Your task to perform on an android device: install app "Google Keep" Image 0: 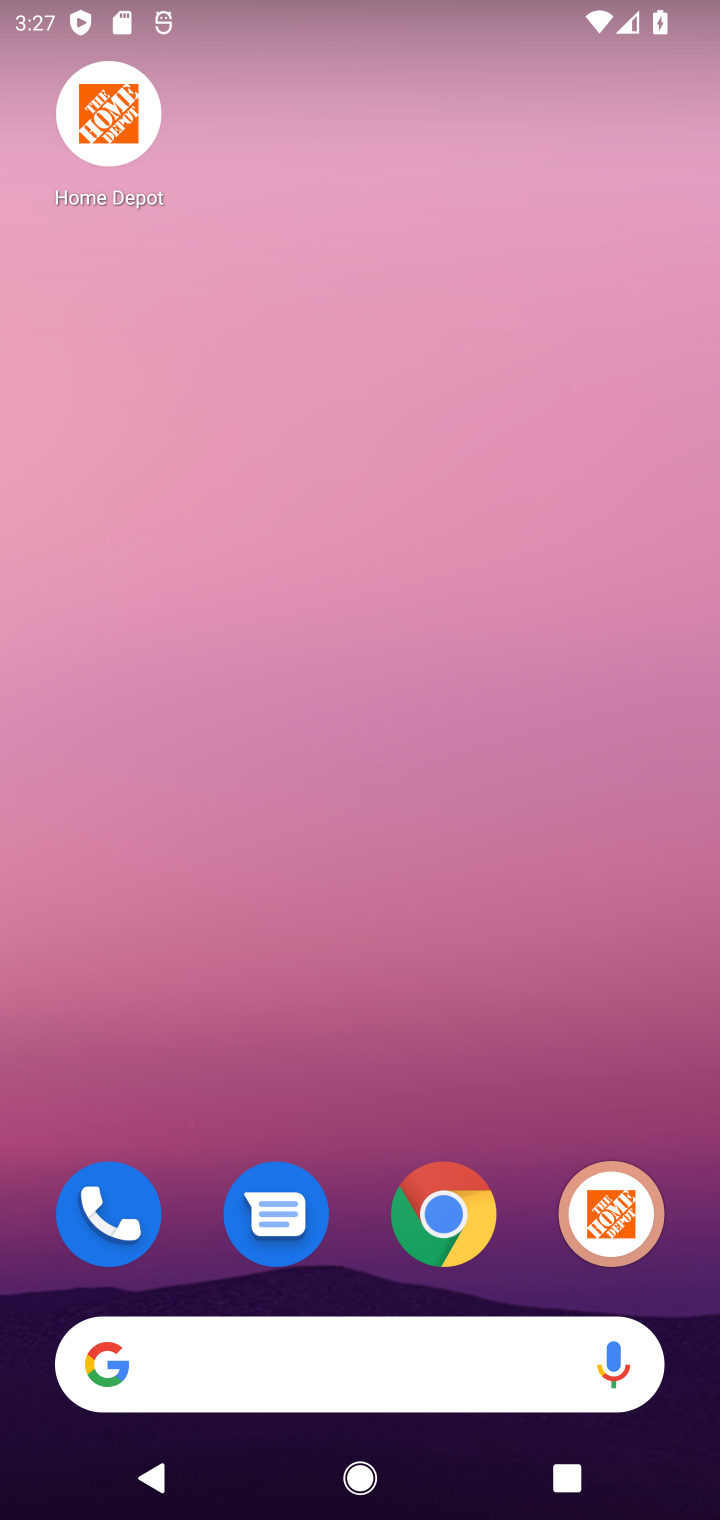
Step 0: drag from (504, 1407) to (410, 87)
Your task to perform on an android device: install app "Google Keep" Image 1: 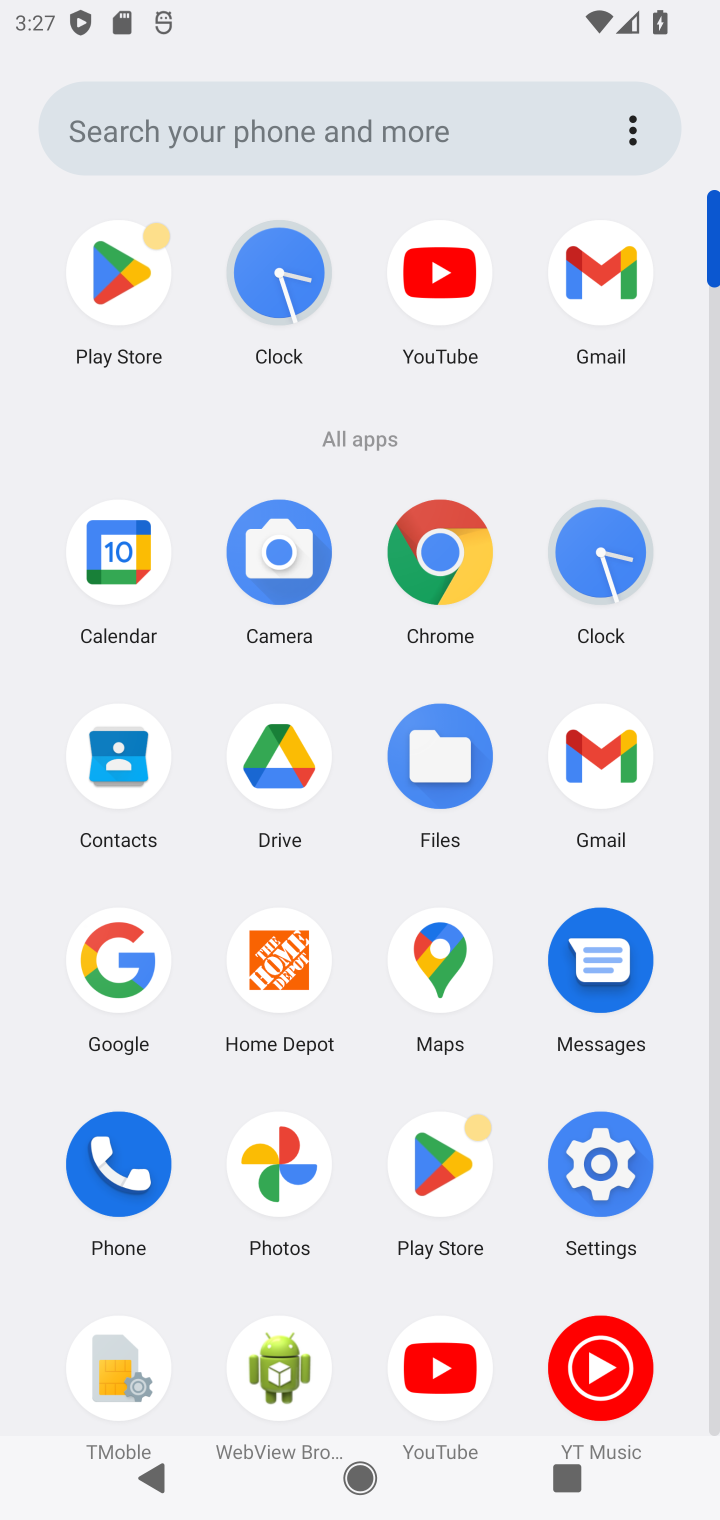
Step 1: click (460, 1172)
Your task to perform on an android device: install app "Google Keep" Image 2: 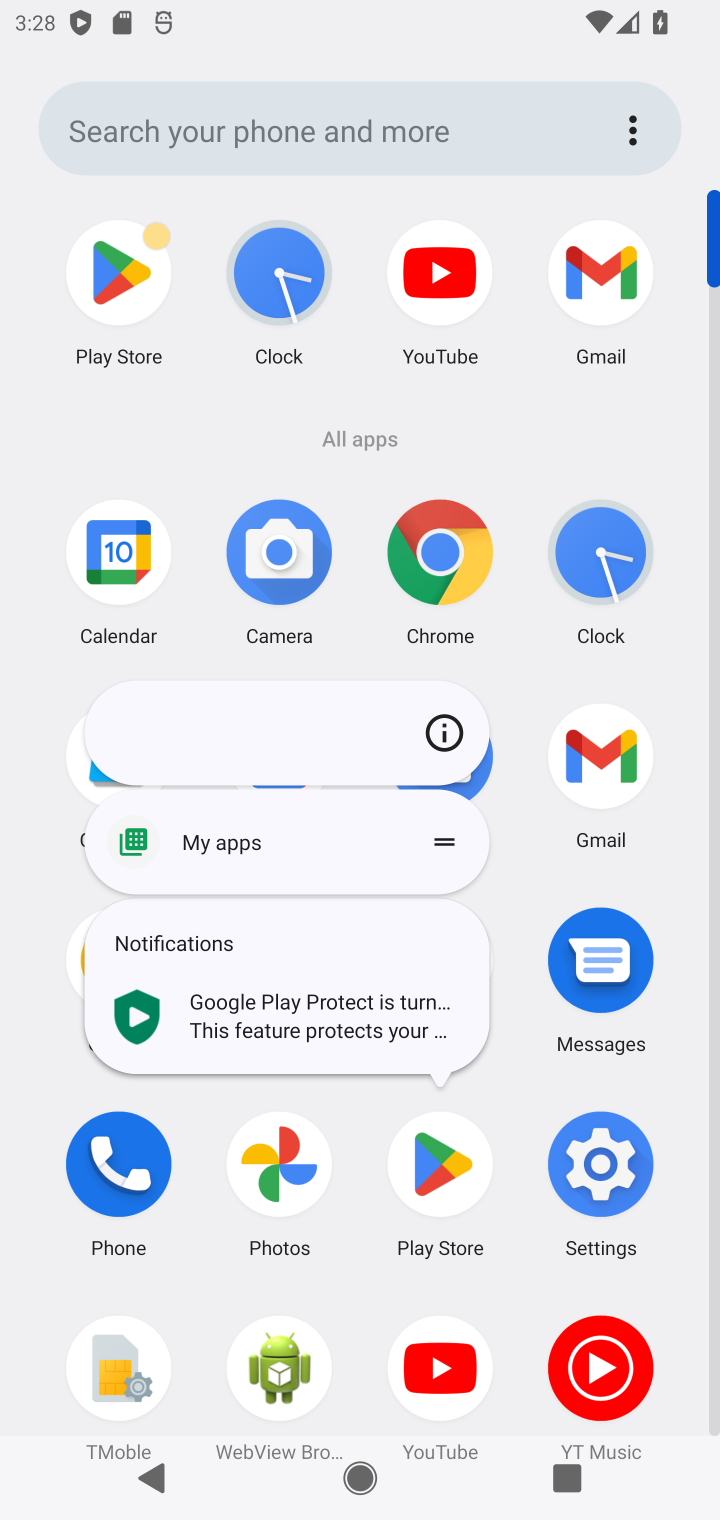
Step 2: click (429, 1191)
Your task to perform on an android device: install app "Google Keep" Image 3: 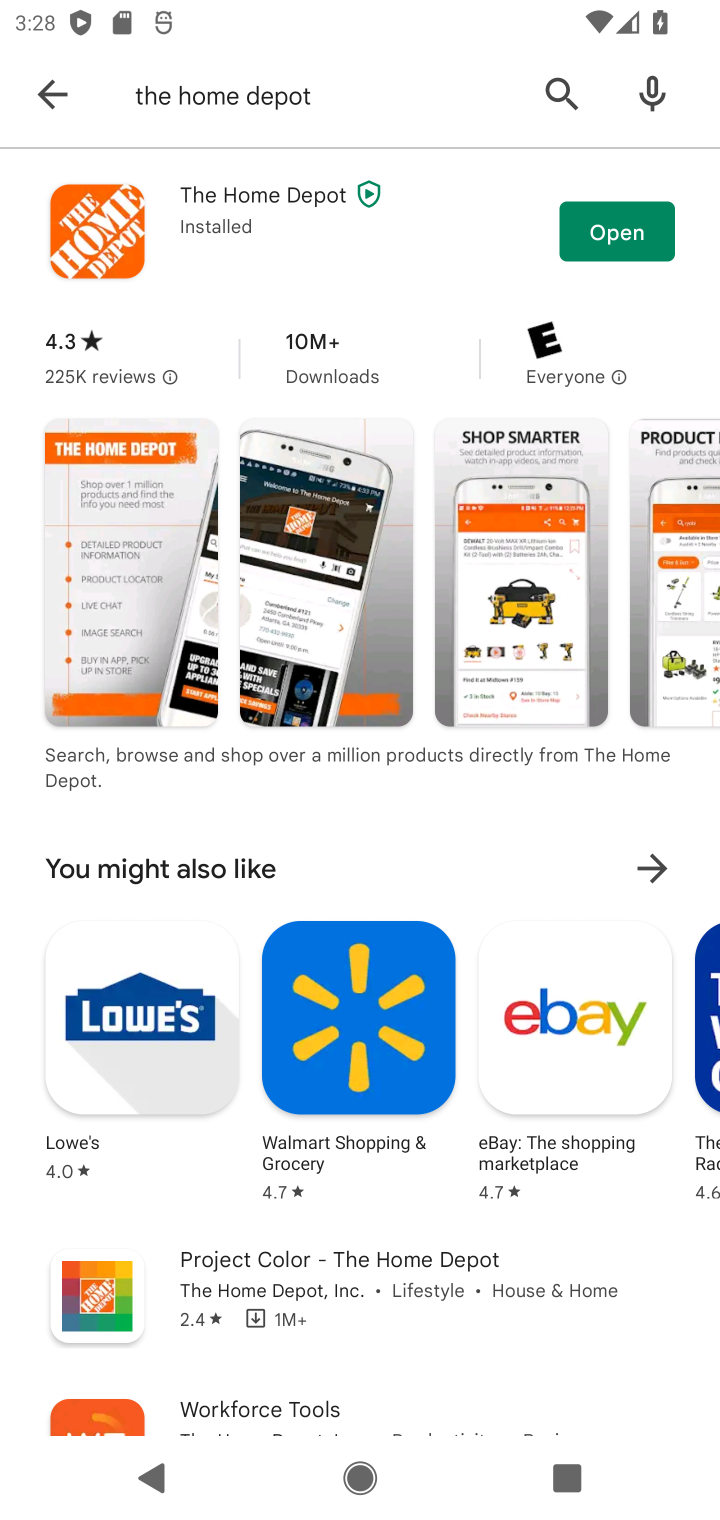
Step 3: click (408, 79)
Your task to perform on an android device: install app "Google Keep" Image 4: 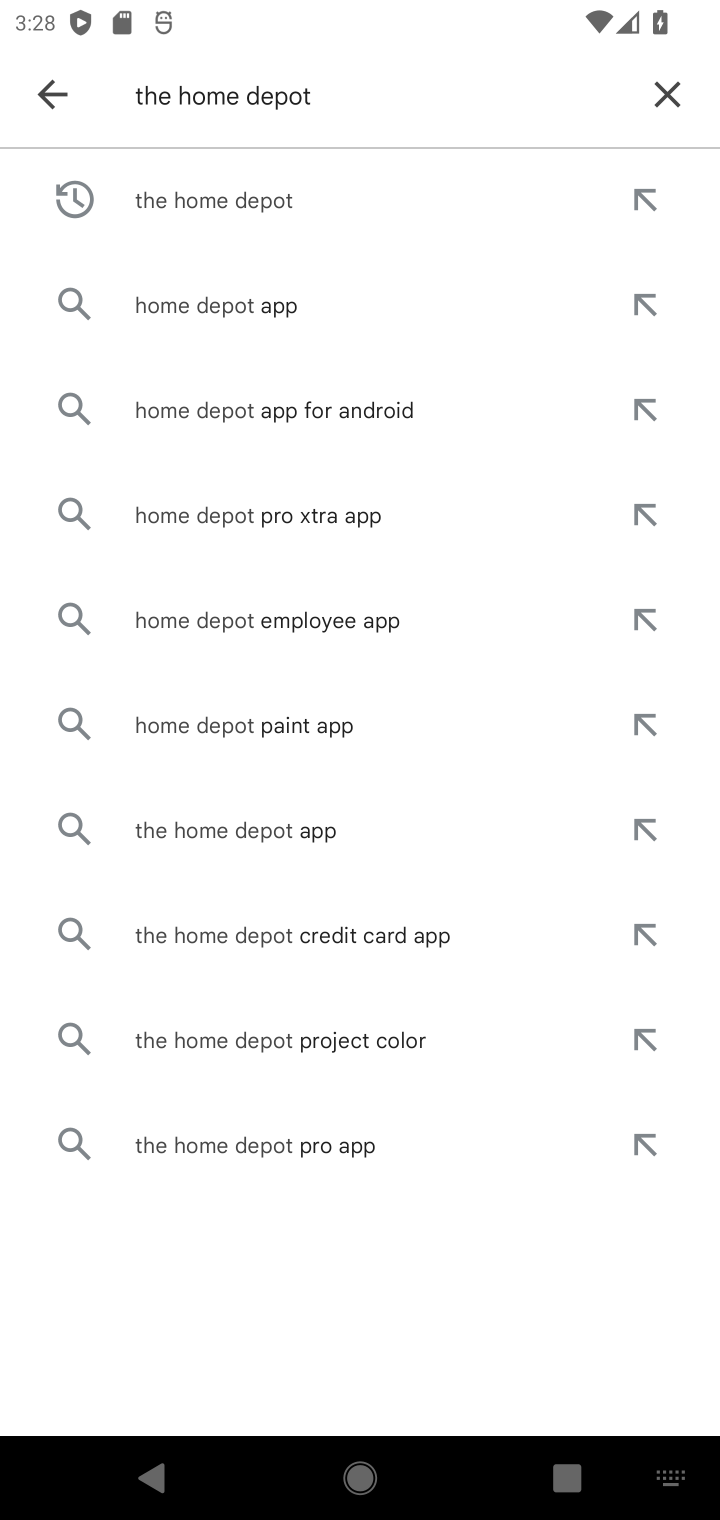
Step 4: click (672, 85)
Your task to perform on an android device: install app "Google Keep" Image 5: 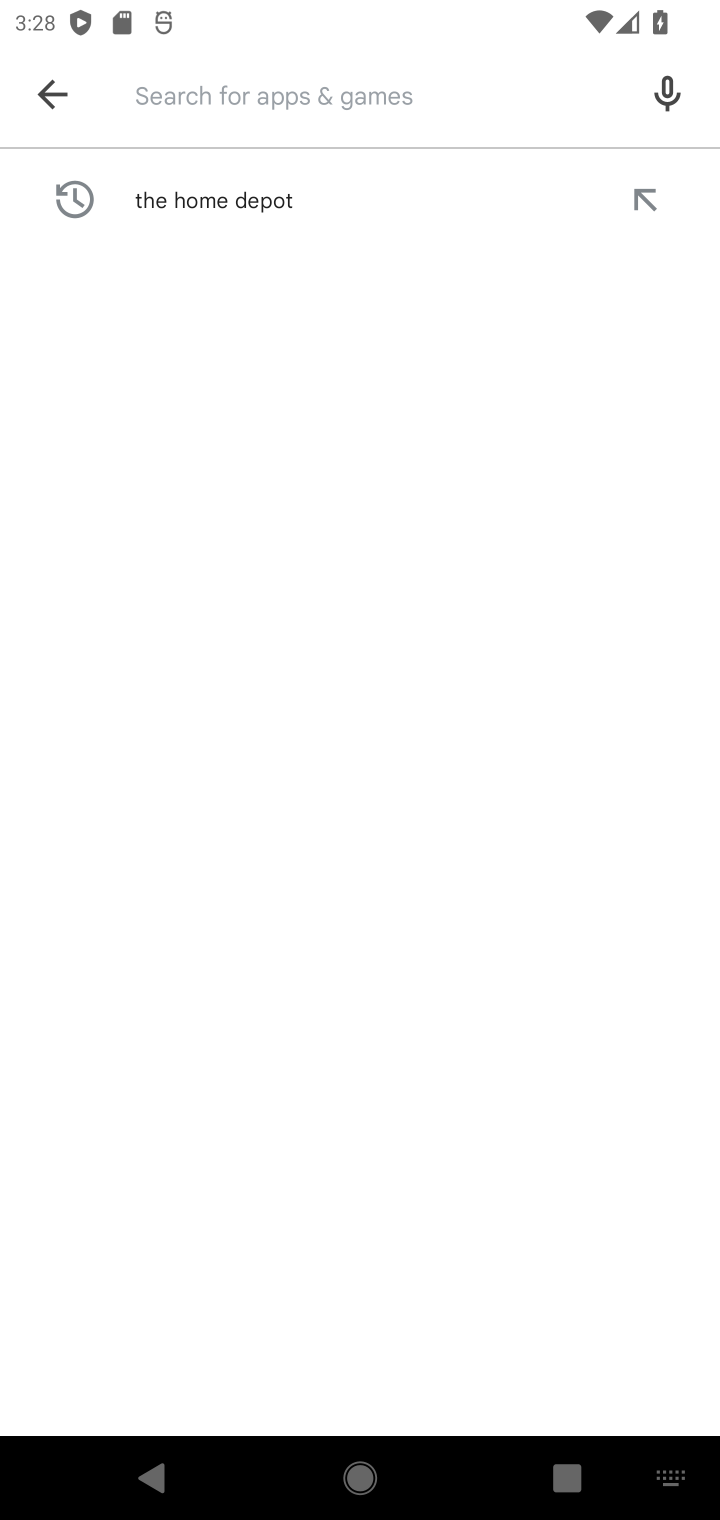
Step 5: type "google keep"
Your task to perform on an android device: install app "Google Keep" Image 6: 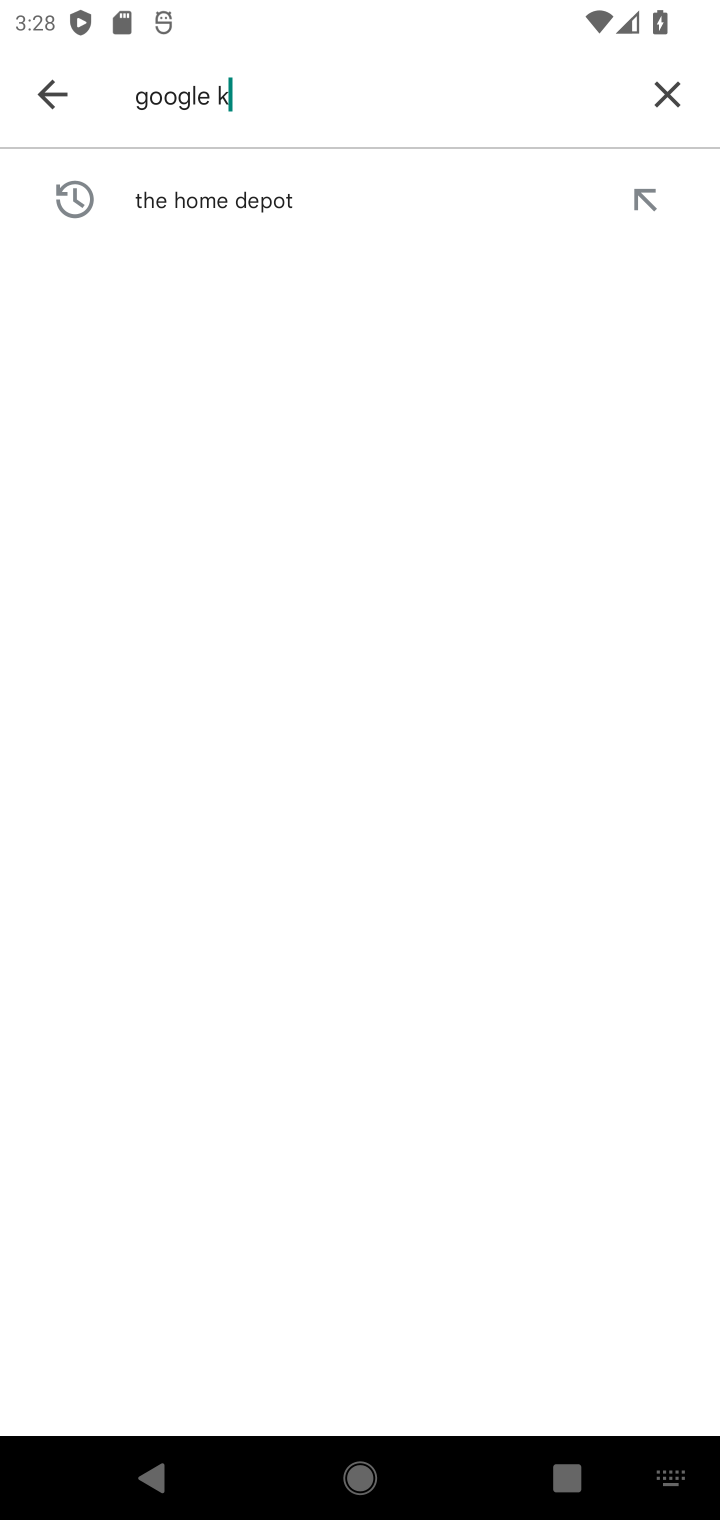
Step 6: type ""
Your task to perform on an android device: install app "Google Keep" Image 7: 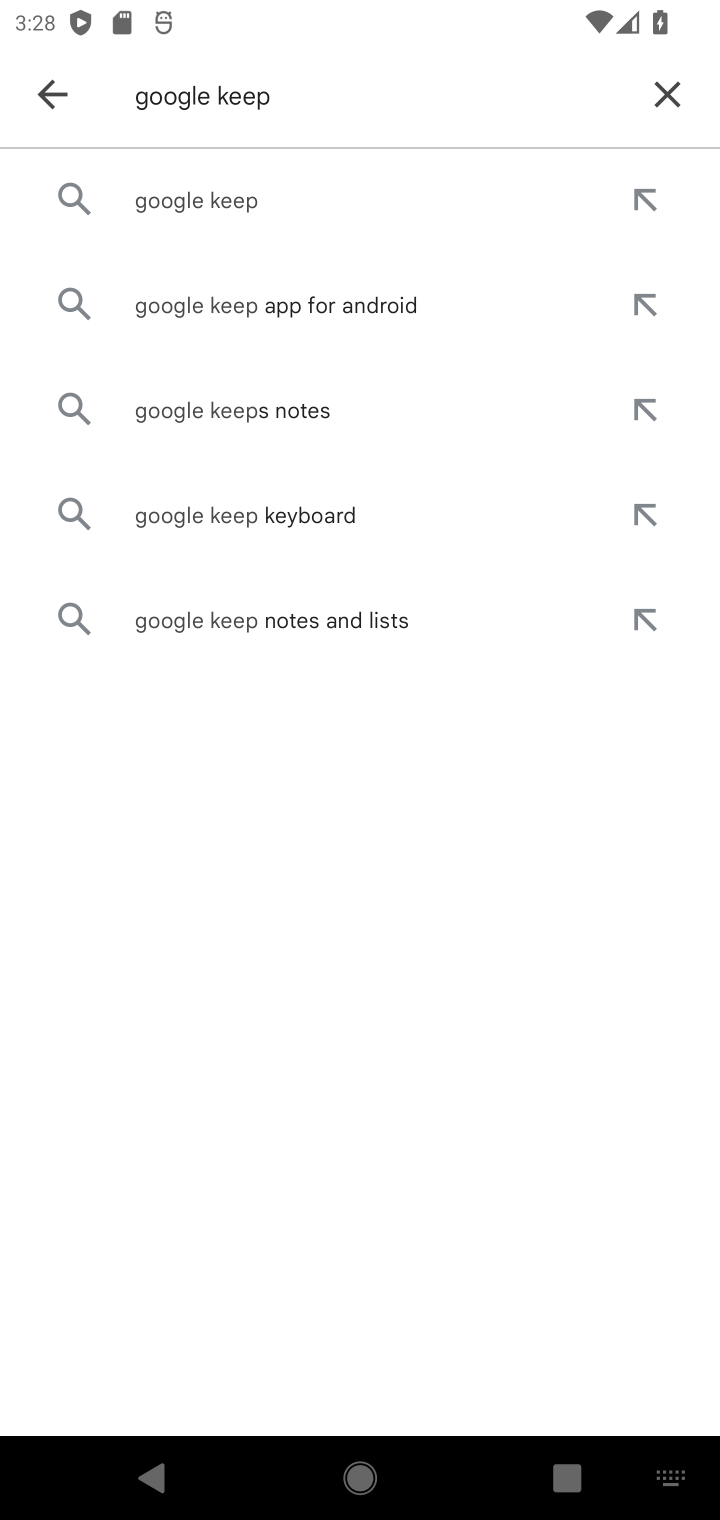
Step 7: click (518, 202)
Your task to perform on an android device: install app "Google Keep" Image 8: 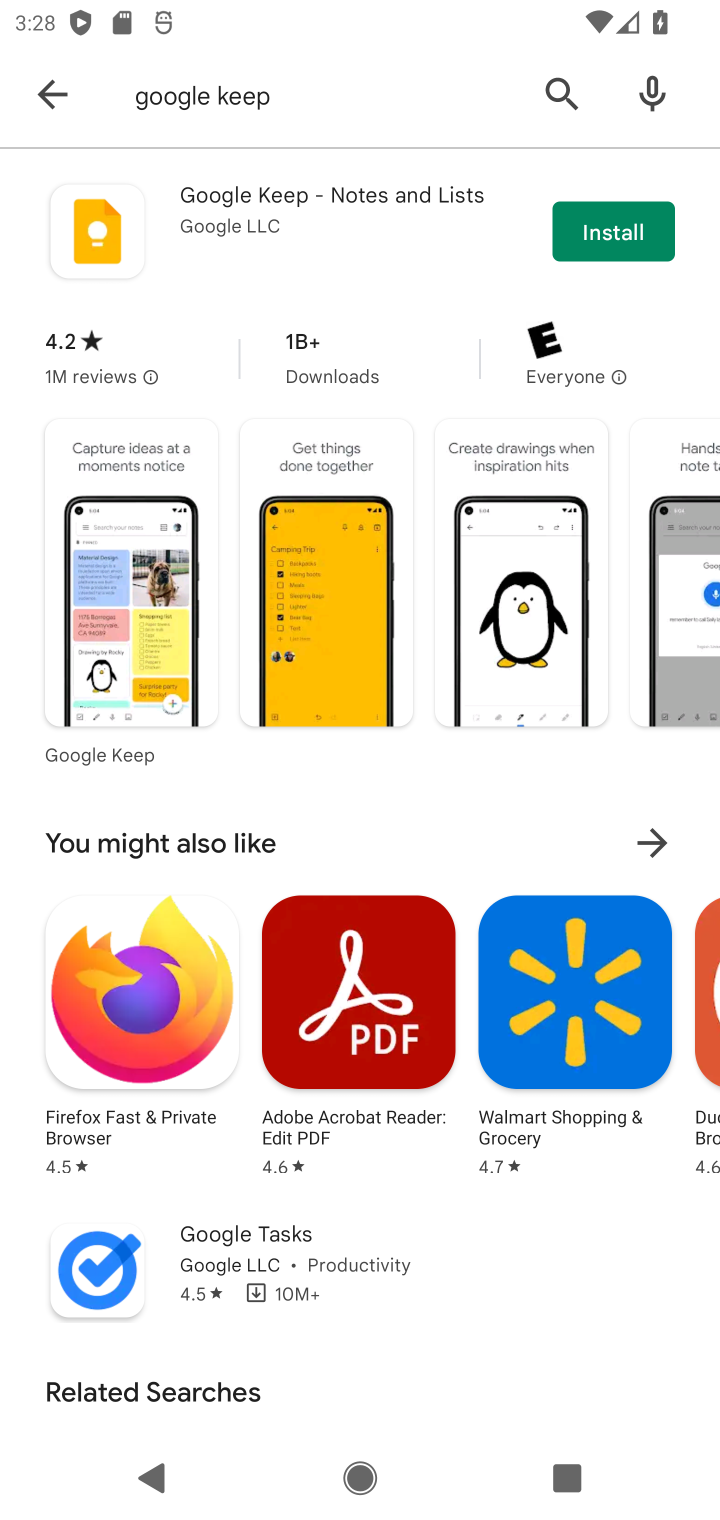
Step 8: click (592, 231)
Your task to perform on an android device: install app "Google Keep" Image 9: 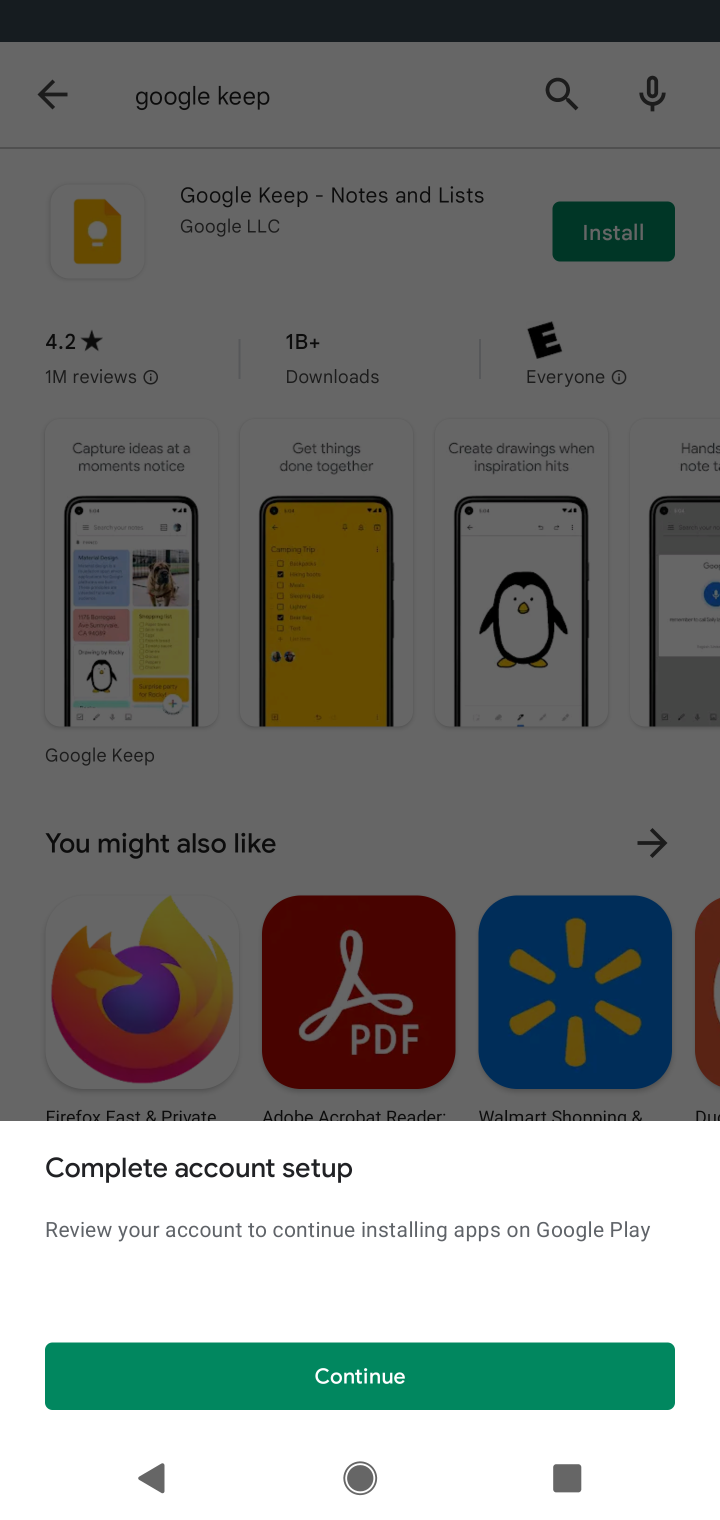
Step 9: click (535, 1365)
Your task to perform on an android device: install app "Google Keep" Image 10: 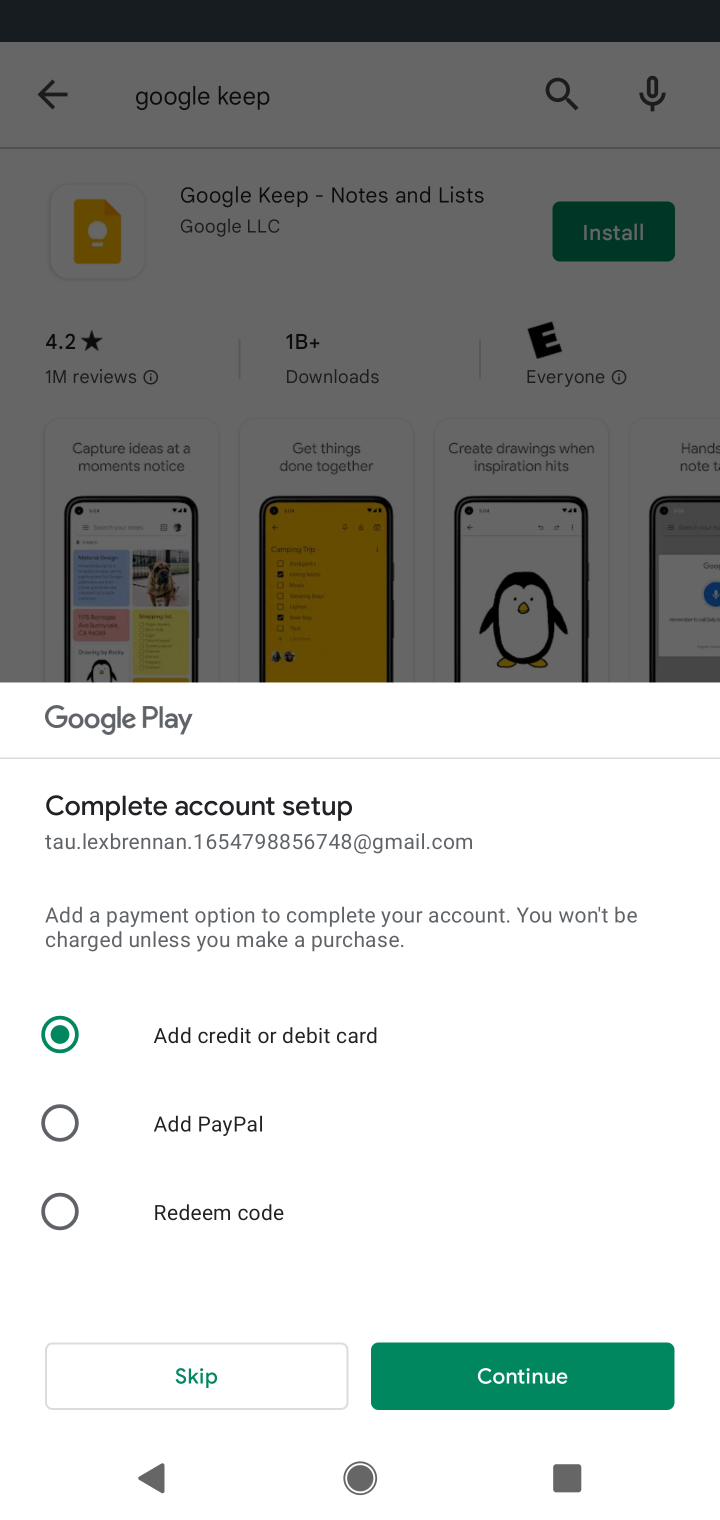
Step 10: click (240, 1373)
Your task to perform on an android device: install app "Google Keep" Image 11: 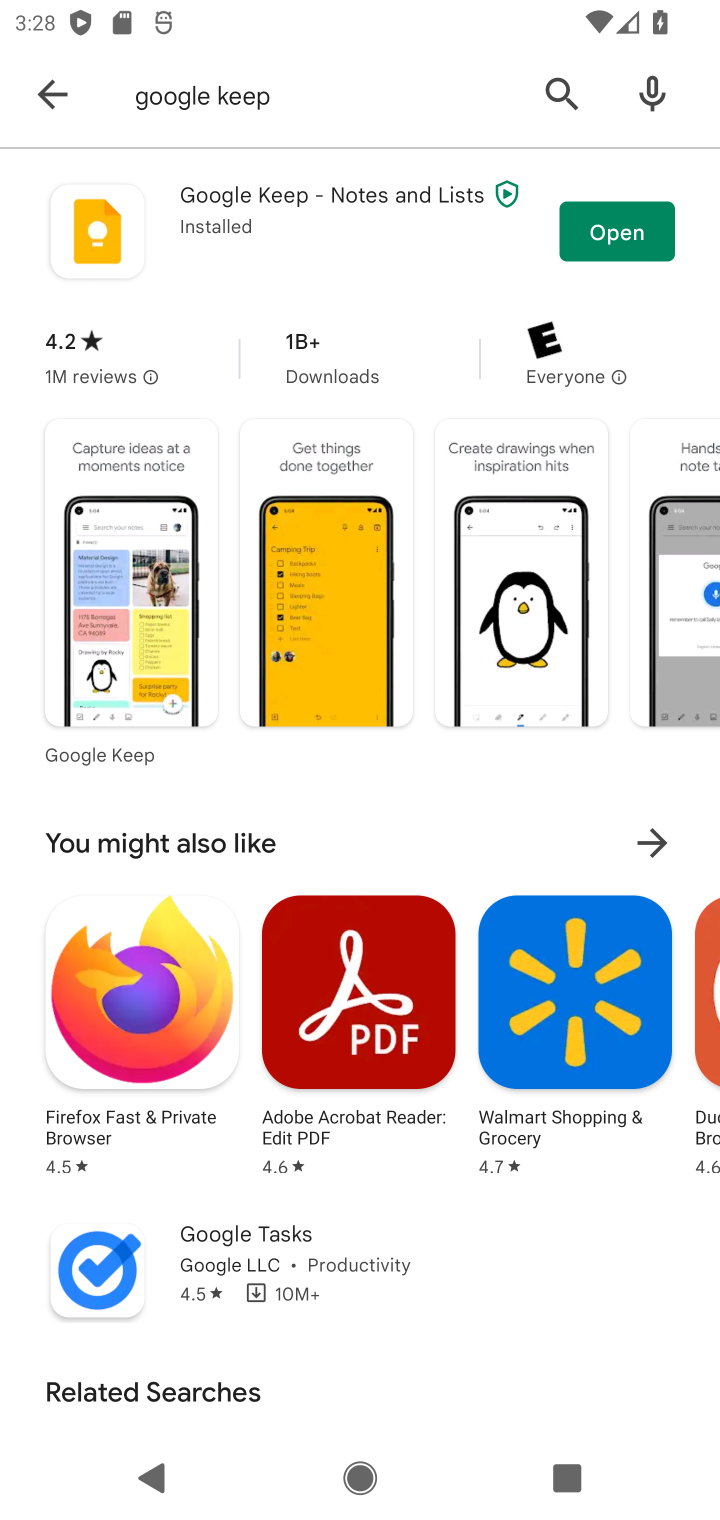
Step 11: click (581, 215)
Your task to perform on an android device: install app "Google Keep" Image 12: 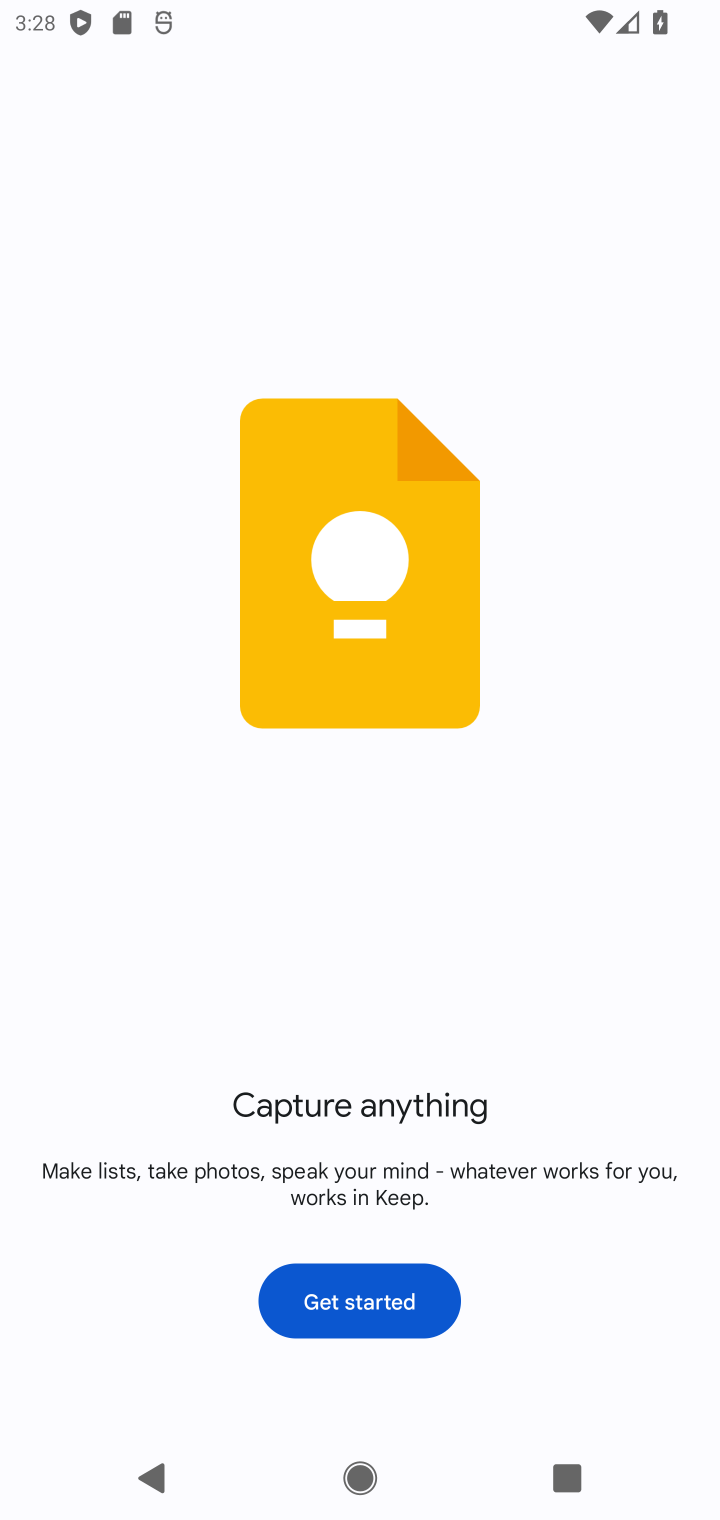
Step 12: click (386, 1320)
Your task to perform on an android device: install app "Google Keep" Image 13: 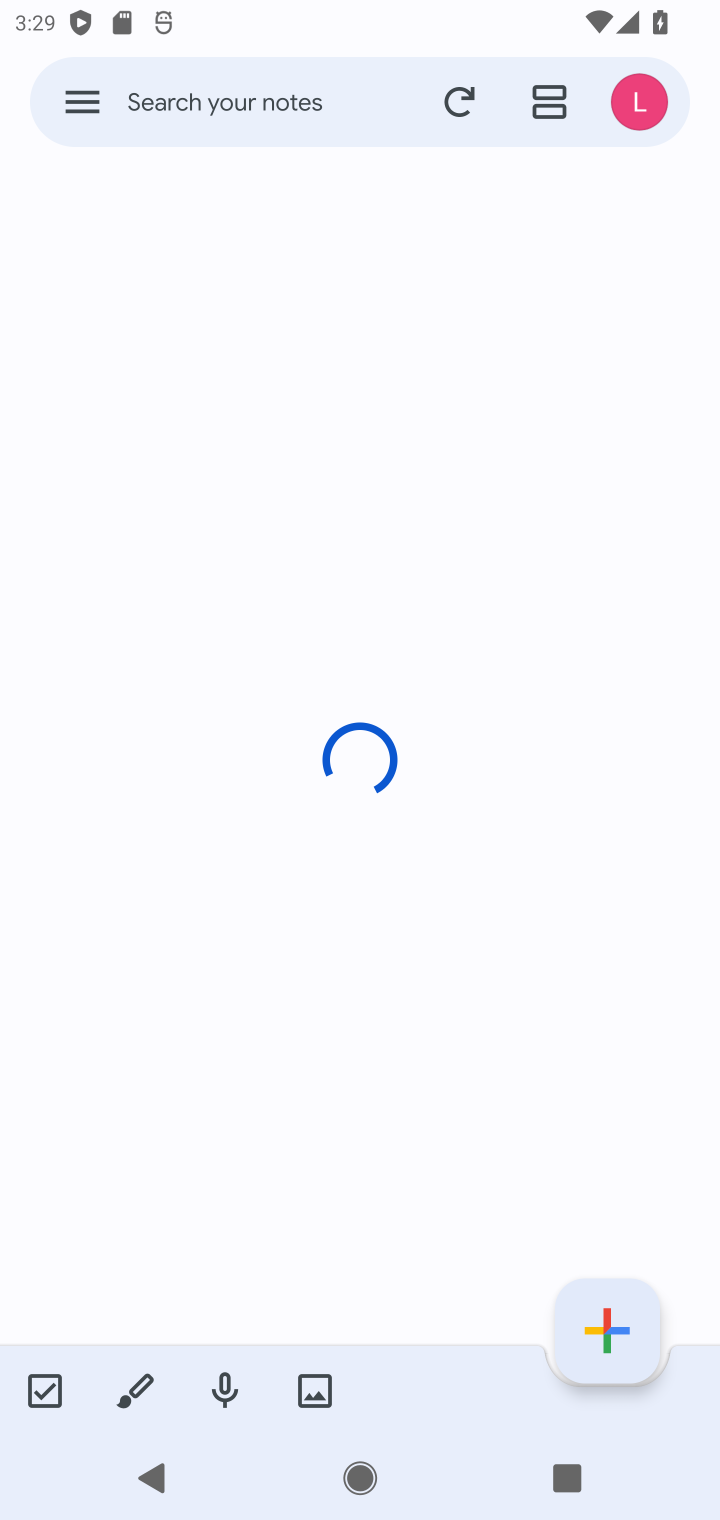
Step 13: task complete